Your task to perform on an android device: Go to location settings Image 0: 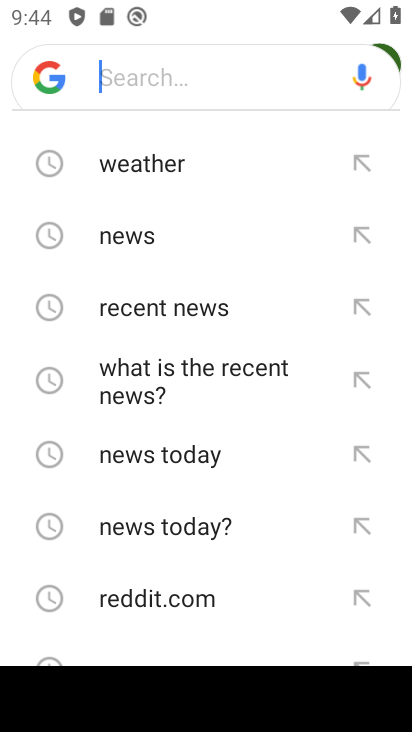
Step 0: press home button
Your task to perform on an android device: Go to location settings Image 1: 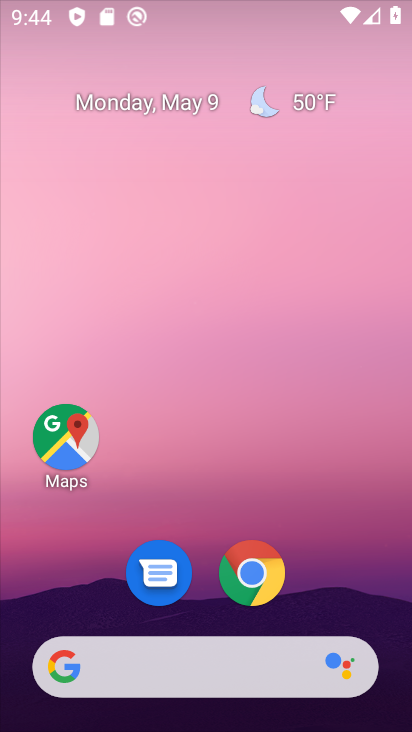
Step 1: drag from (383, 565) to (283, 55)
Your task to perform on an android device: Go to location settings Image 2: 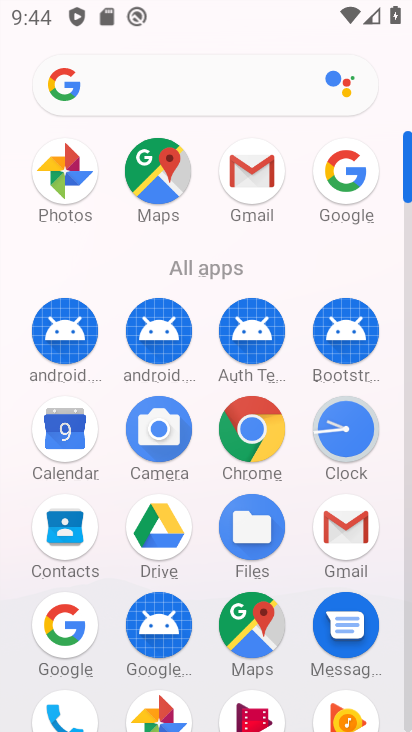
Step 2: drag from (289, 521) to (282, 66)
Your task to perform on an android device: Go to location settings Image 3: 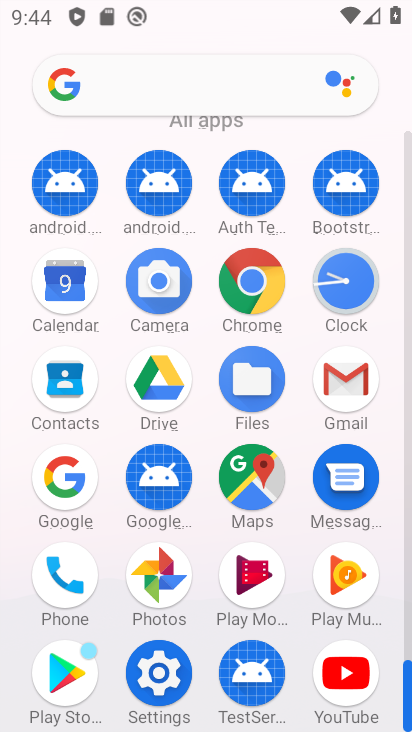
Step 3: click (154, 671)
Your task to perform on an android device: Go to location settings Image 4: 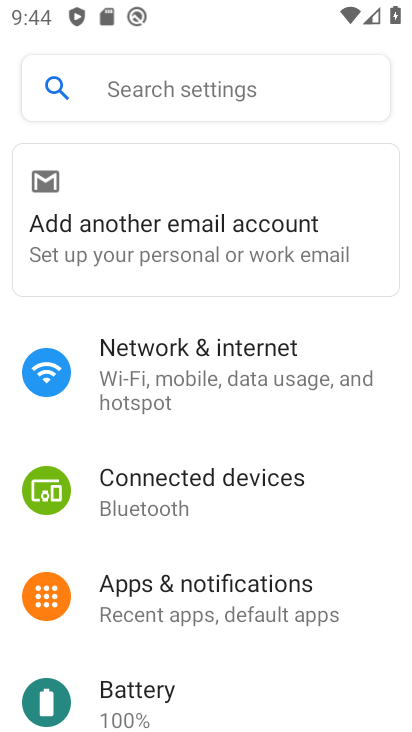
Step 4: drag from (260, 672) to (209, 138)
Your task to perform on an android device: Go to location settings Image 5: 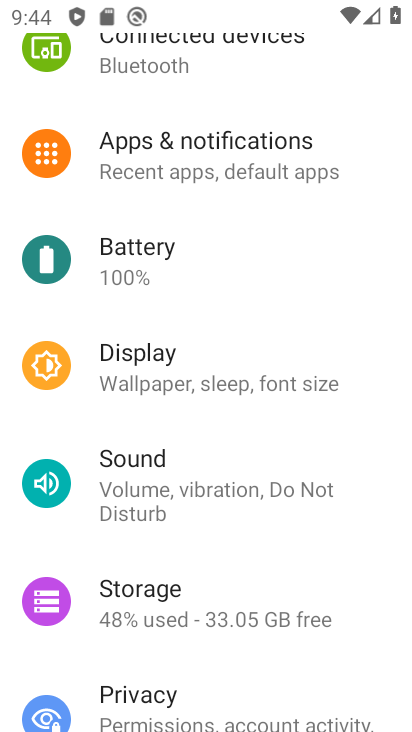
Step 5: drag from (212, 532) to (241, 277)
Your task to perform on an android device: Go to location settings Image 6: 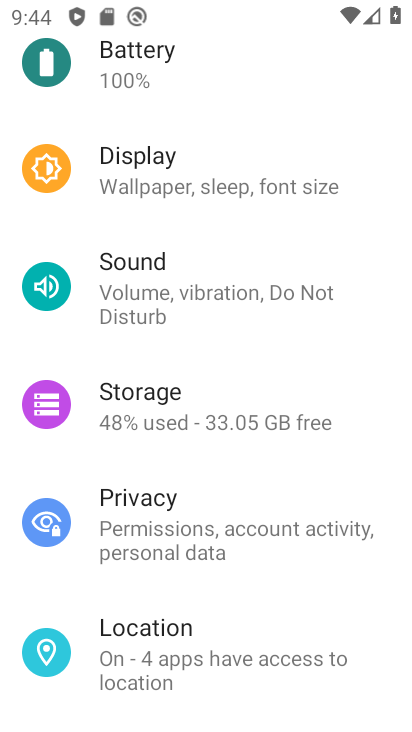
Step 6: click (200, 669)
Your task to perform on an android device: Go to location settings Image 7: 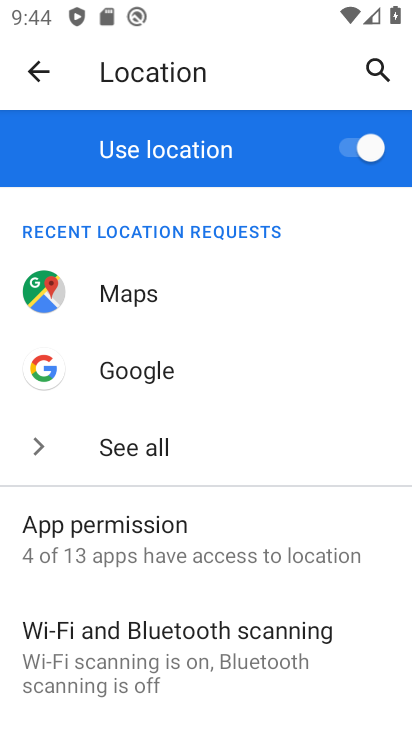
Step 7: task complete